Your task to perform on an android device: What's the weather going to be tomorrow? Image 0: 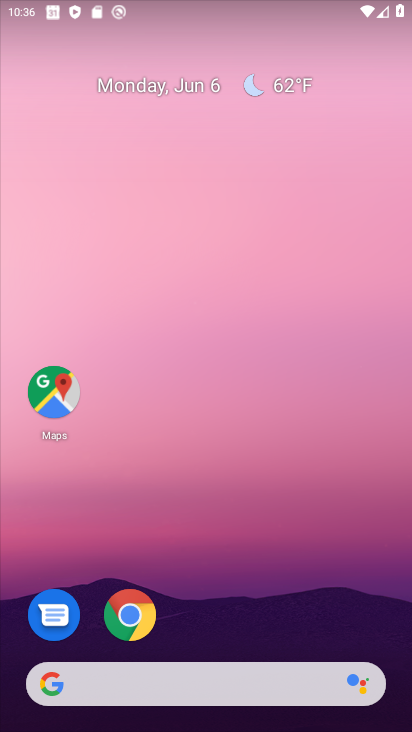
Step 0: drag from (264, 641) to (169, 137)
Your task to perform on an android device: What's the weather going to be tomorrow? Image 1: 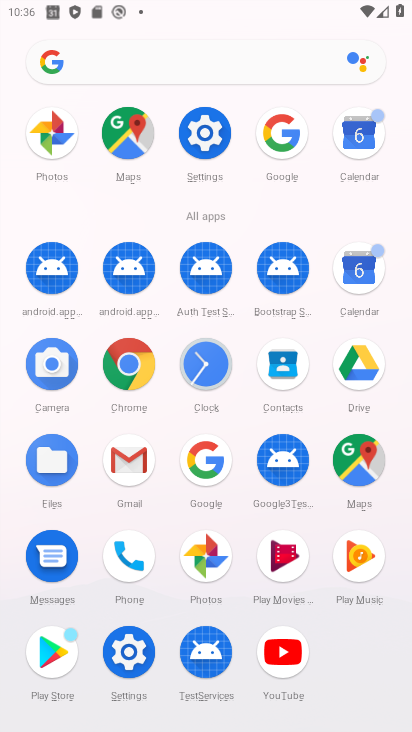
Step 1: press back button
Your task to perform on an android device: What's the weather going to be tomorrow? Image 2: 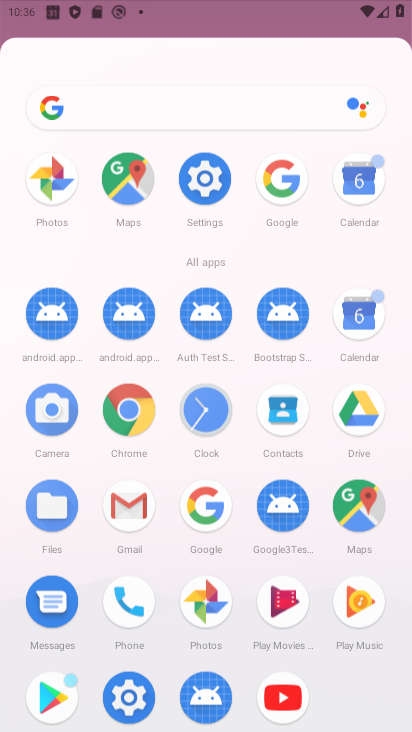
Step 2: press back button
Your task to perform on an android device: What's the weather going to be tomorrow? Image 3: 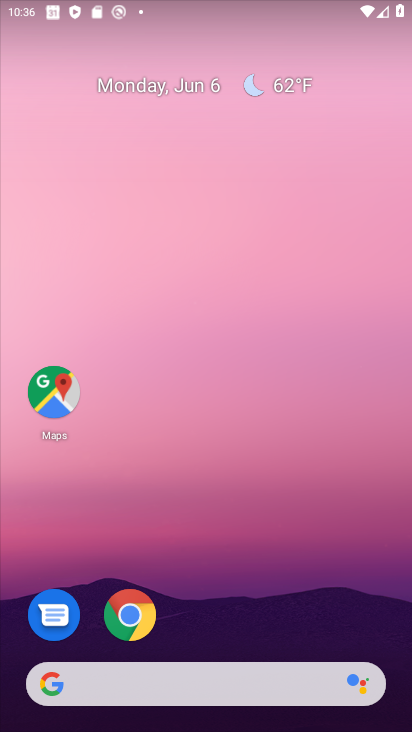
Step 3: press back button
Your task to perform on an android device: What's the weather going to be tomorrow? Image 4: 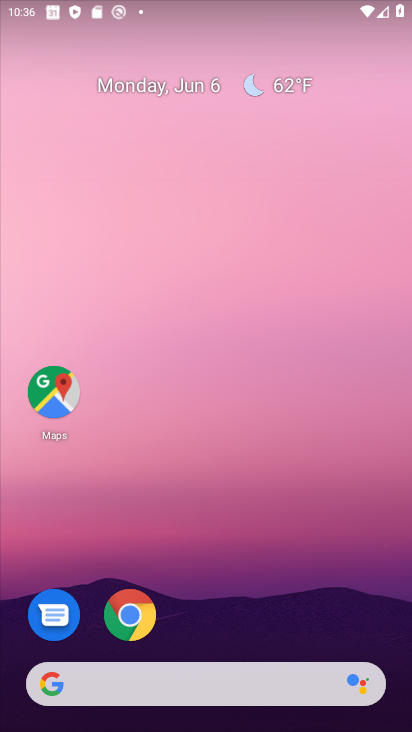
Step 4: drag from (25, 200) to (379, 410)
Your task to perform on an android device: What's the weather going to be tomorrow? Image 5: 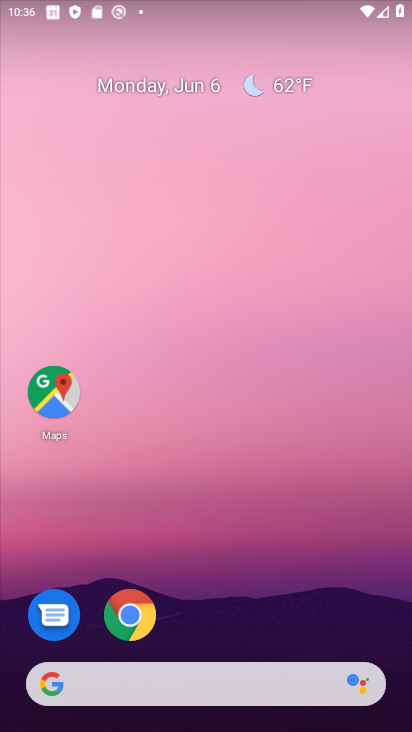
Step 5: drag from (3, 202) to (379, 528)
Your task to perform on an android device: What's the weather going to be tomorrow? Image 6: 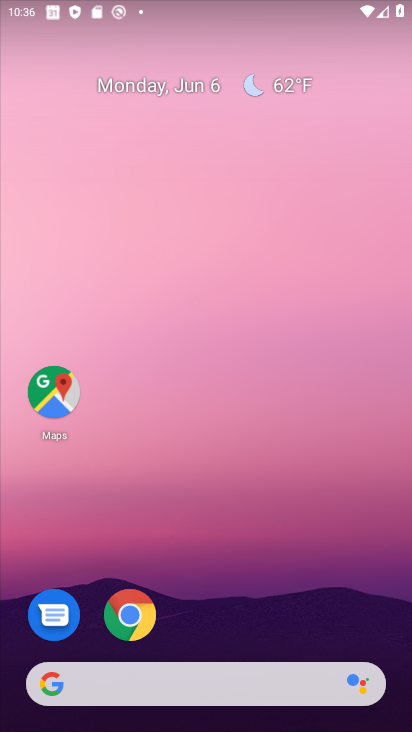
Step 6: drag from (32, 187) to (393, 415)
Your task to perform on an android device: What's the weather going to be tomorrow? Image 7: 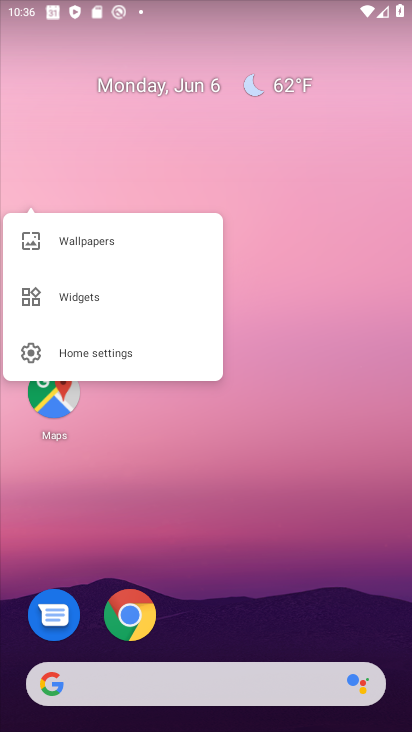
Step 7: drag from (15, 192) to (371, 447)
Your task to perform on an android device: What's the weather going to be tomorrow? Image 8: 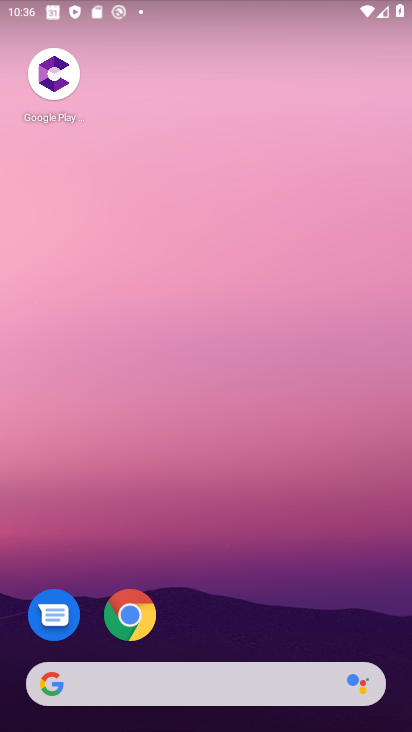
Step 8: drag from (11, 212) to (184, 504)
Your task to perform on an android device: What's the weather going to be tomorrow? Image 9: 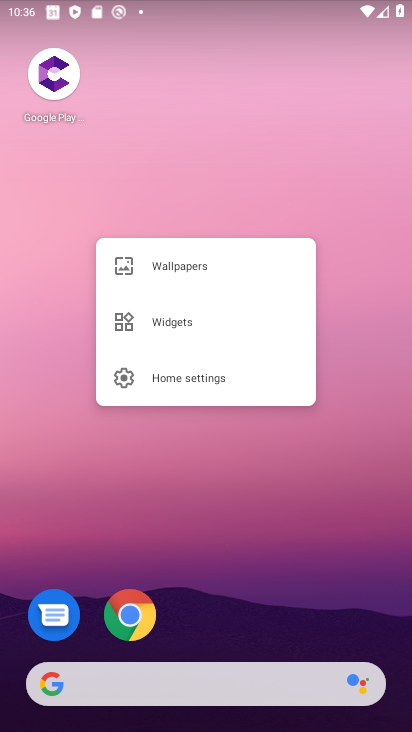
Step 9: drag from (26, 209) to (377, 417)
Your task to perform on an android device: What's the weather going to be tomorrow? Image 10: 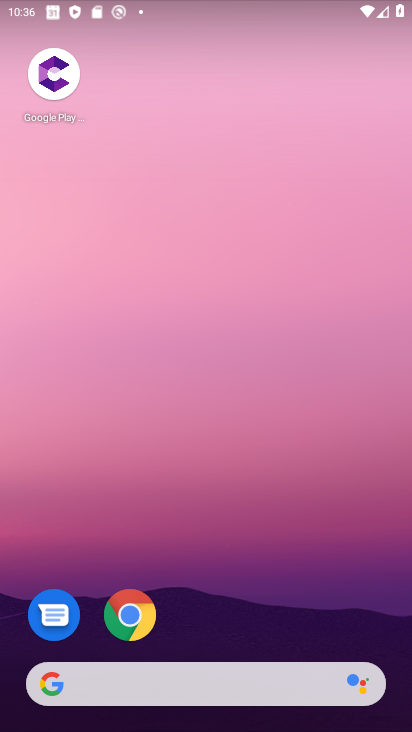
Step 10: drag from (27, 153) to (407, 466)
Your task to perform on an android device: What's the weather going to be tomorrow? Image 11: 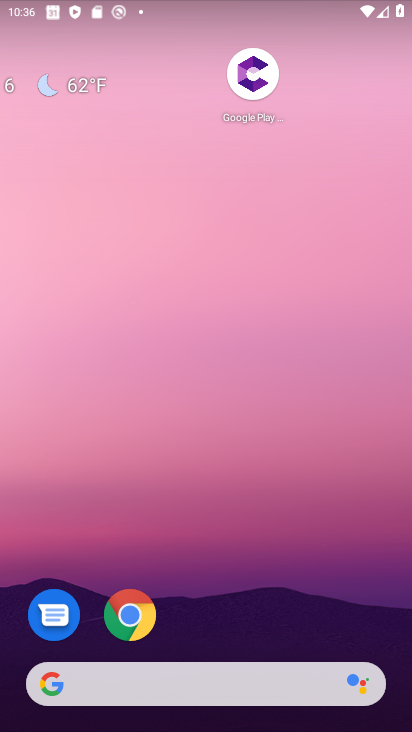
Step 11: drag from (171, 177) to (392, 332)
Your task to perform on an android device: What's the weather going to be tomorrow? Image 12: 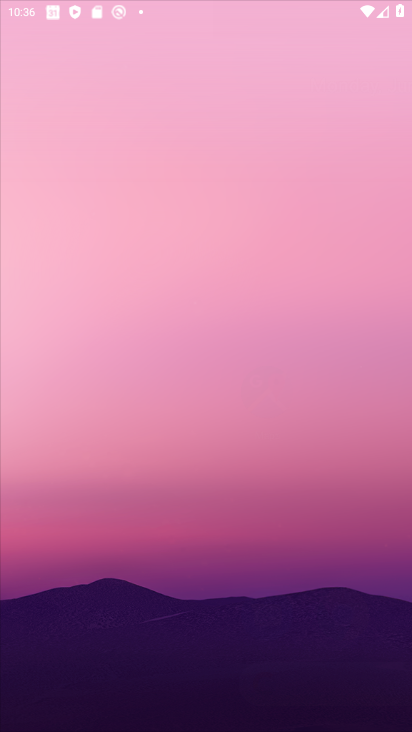
Step 12: drag from (79, 168) to (409, 451)
Your task to perform on an android device: What's the weather going to be tomorrow? Image 13: 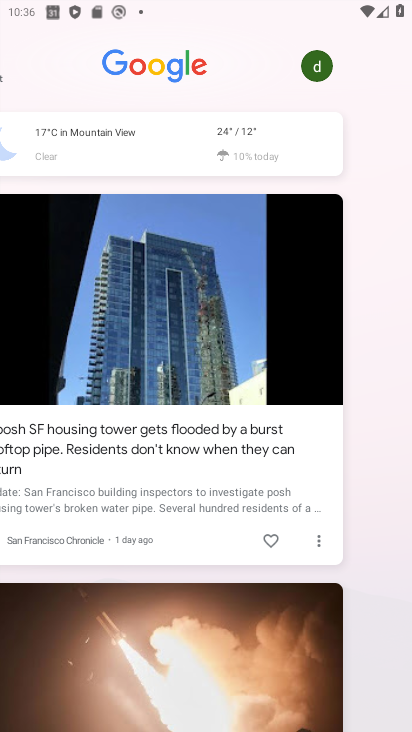
Step 13: drag from (97, 240) to (392, 461)
Your task to perform on an android device: What's the weather going to be tomorrow? Image 14: 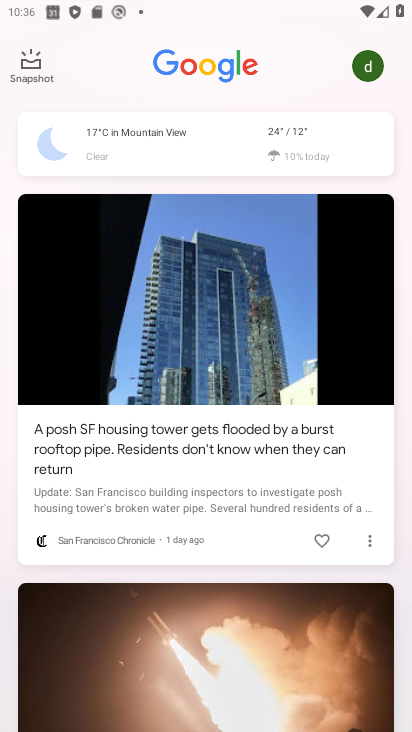
Step 14: click (172, 142)
Your task to perform on an android device: What's the weather going to be tomorrow? Image 15: 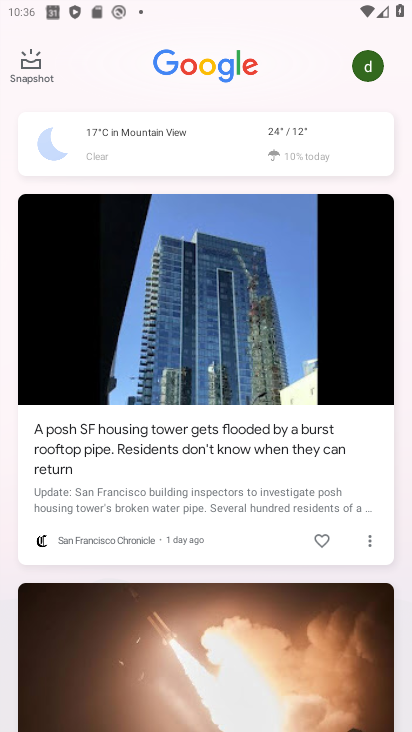
Step 15: click (174, 140)
Your task to perform on an android device: What's the weather going to be tomorrow? Image 16: 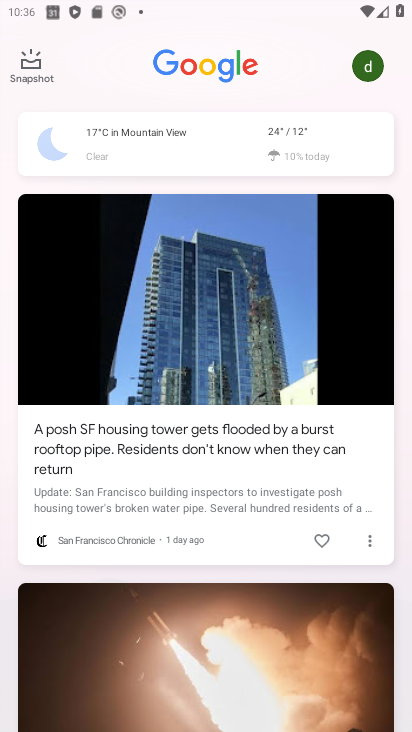
Step 16: click (174, 140)
Your task to perform on an android device: What's the weather going to be tomorrow? Image 17: 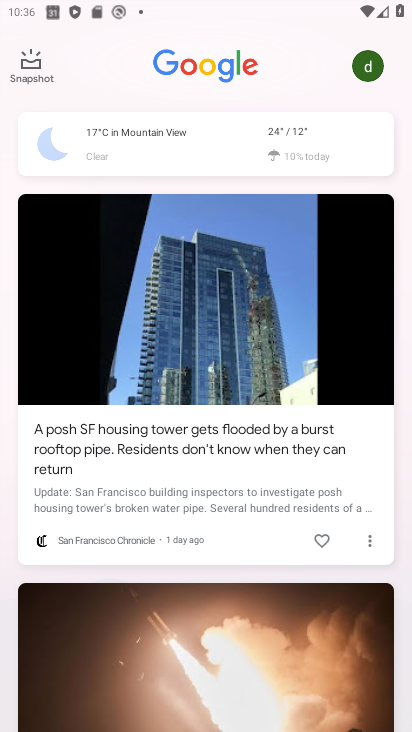
Step 17: click (176, 140)
Your task to perform on an android device: What's the weather going to be tomorrow? Image 18: 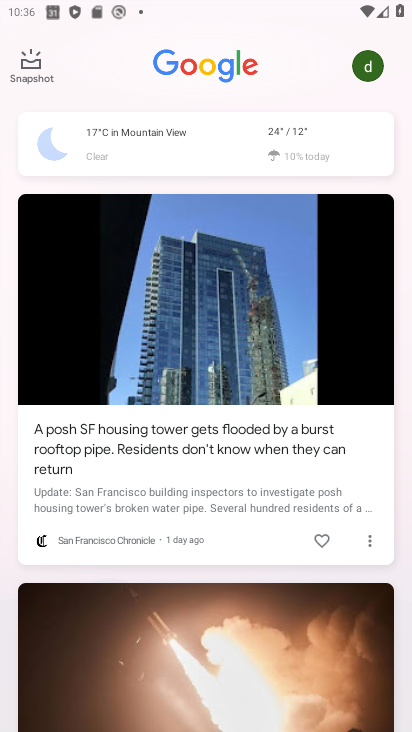
Step 18: click (176, 140)
Your task to perform on an android device: What's the weather going to be tomorrow? Image 19: 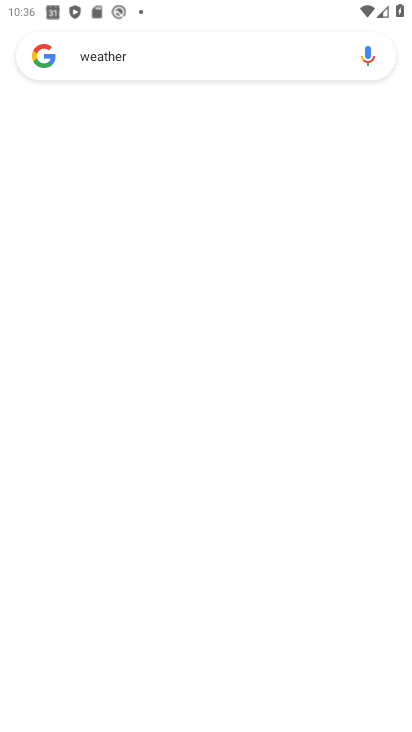
Step 19: click (176, 139)
Your task to perform on an android device: What's the weather going to be tomorrow? Image 20: 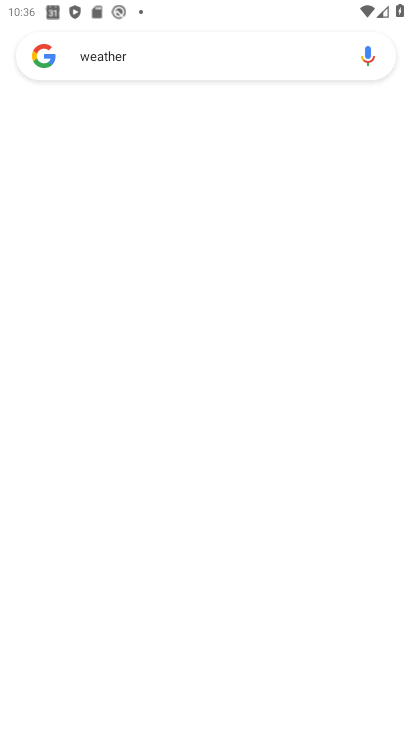
Step 20: click (176, 138)
Your task to perform on an android device: What's the weather going to be tomorrow? Image 21: 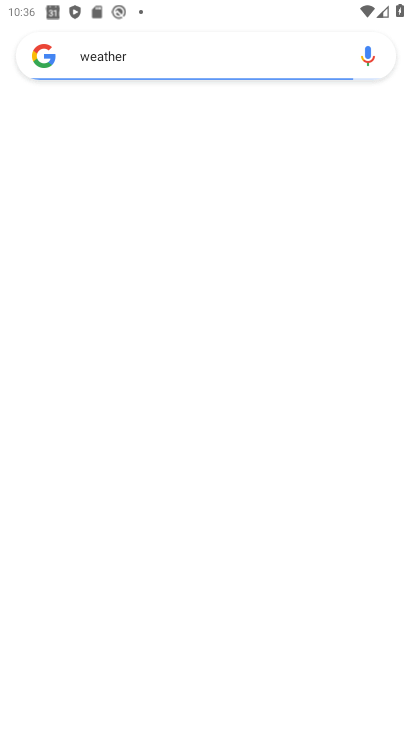
Step 21: click (176, 138)
Your task to perform on an android device: What's the weather going to be tomorrow? Image 22: 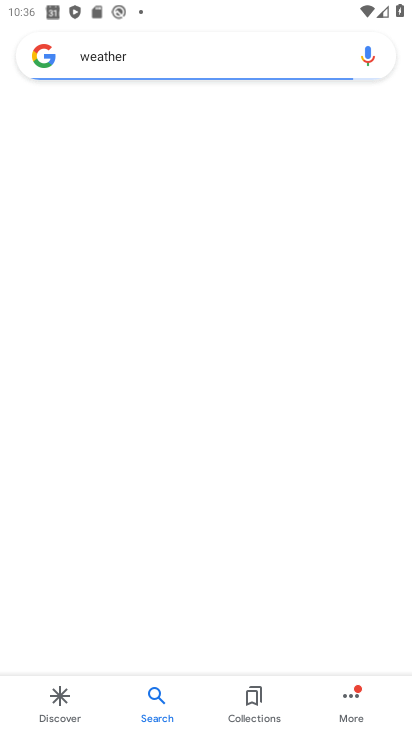
Step 22: click (176, 138)
Your task to perform on an android device: What's the weather going to be tomorrow? Image 23: 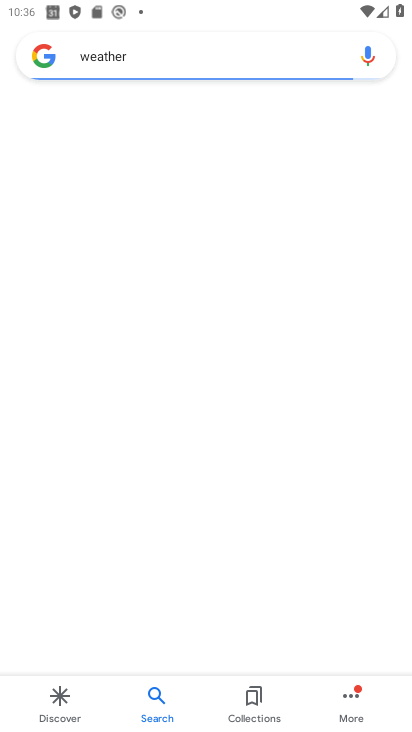
Step 23: click (177, 138)
Your task to perform on an android device: What's the weather going to be tomorrow? Image 24: 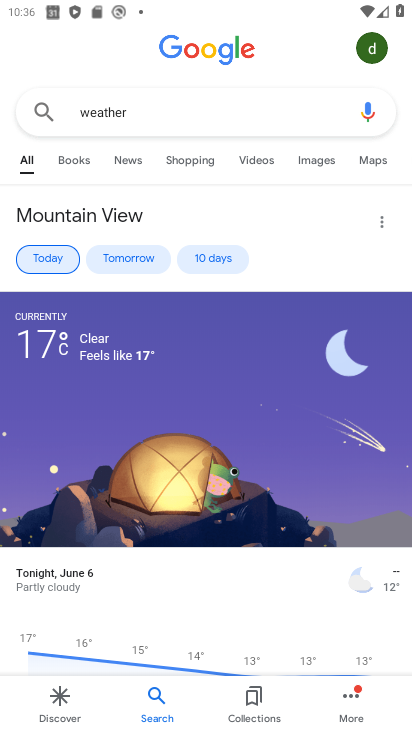
Step 24: task complete